Your task to perform on an android device: Open Google Chrome Image 0: 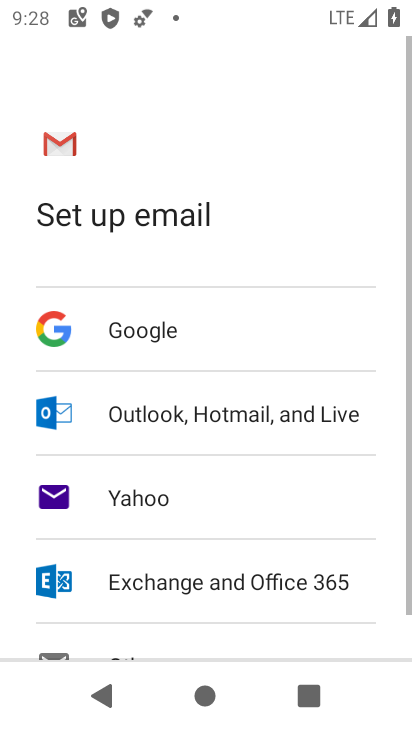
Step 0: press home button
Your task to perform on an android device: Open Google Chrome Image 1: 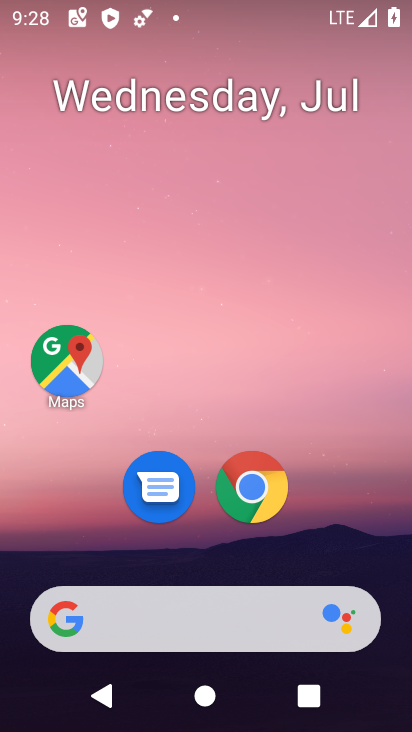
Step 1: drag from (245, 566) to (187, 38)
Your task to perform on an android device: Open Google Chrome Image 2: 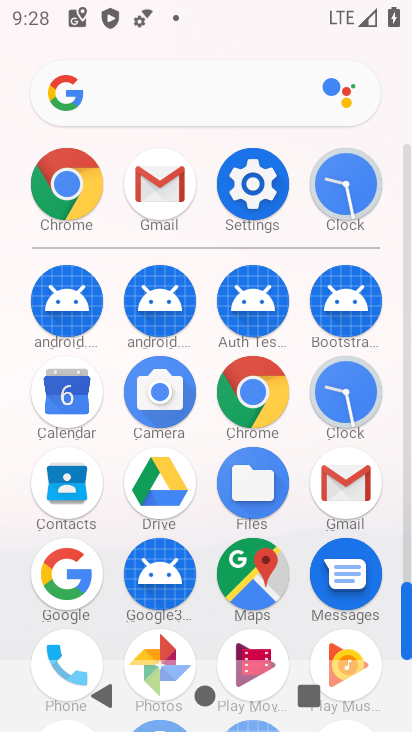
Step 2: click (49, 185)
Your task to perform on an android device: Open Google Chrome Image 3: 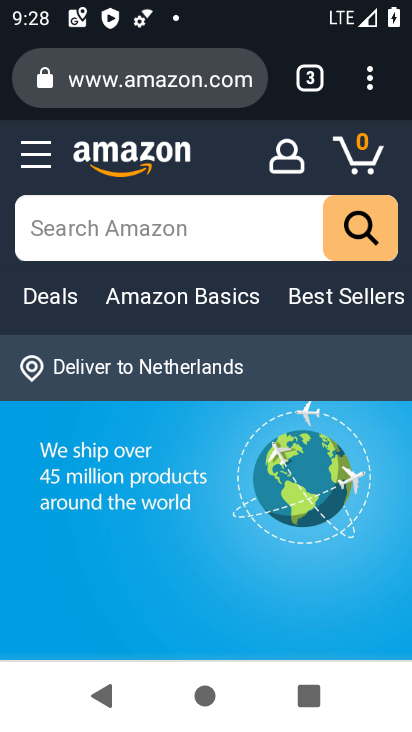
Step 3: task complete